Your task to perform on an android device: toggle wifi Image 0: 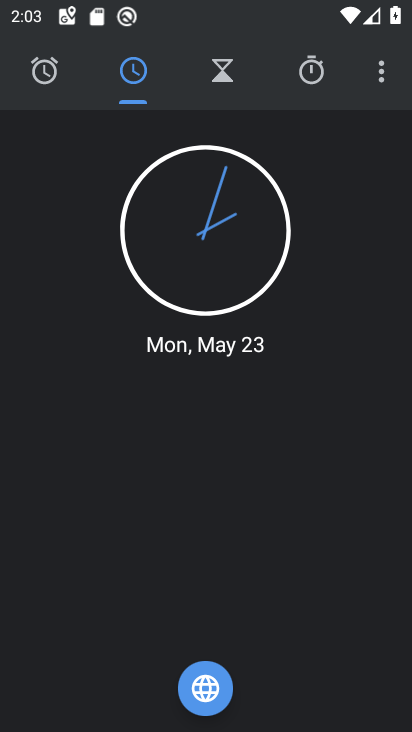
Step 0: press home button
Your task to perform on an android device: toggle wifi Image 1: 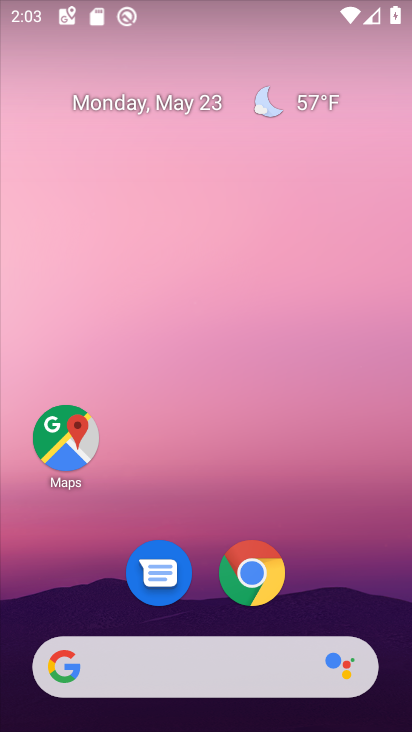
Step 1: drag from (304, 551) to (224, 12)
Your task to perform on an android device: toggle wifi Image 2: 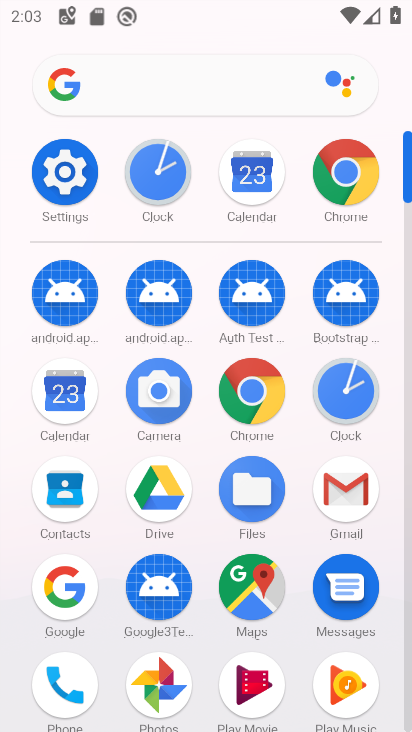
Step 2: click (66, 191)
Your task to perform on an android device: toggle wifi Image 3: 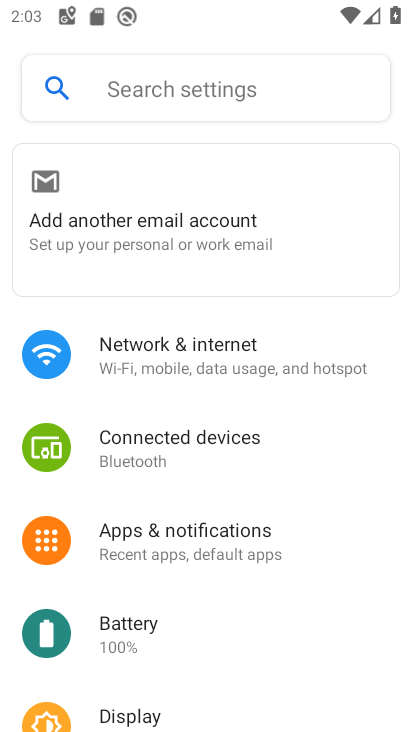
Step 3: click (131, 358)
Your task to perform on an android device: toggle wifi Image 4: 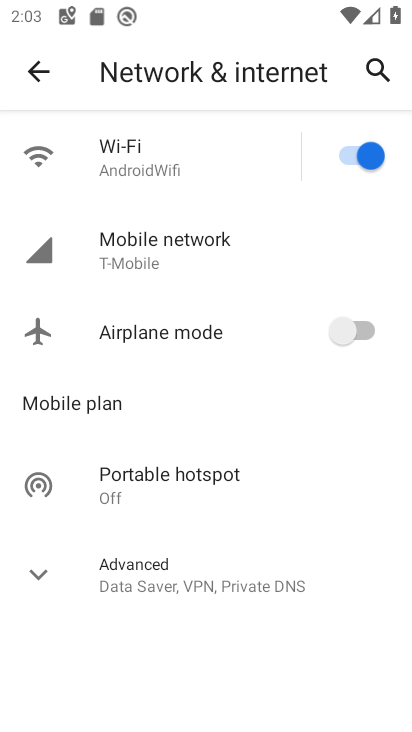
Step 4: click (370, 147)
Your task to perform on an android device: toggle wifi Image 5: 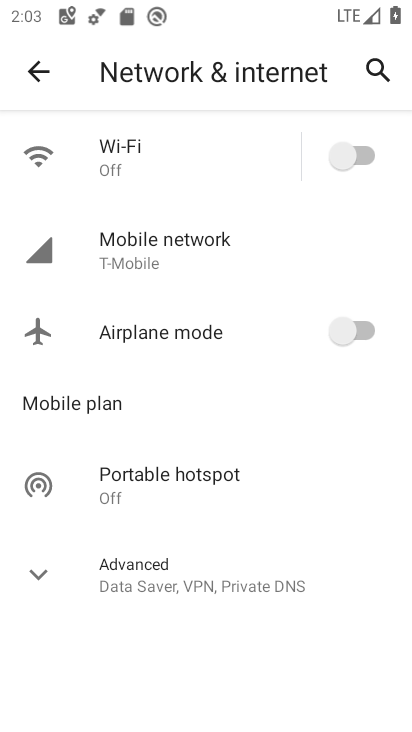
Step 5: task complete